Your task to perform on an android device: Open Android settings Image 0: 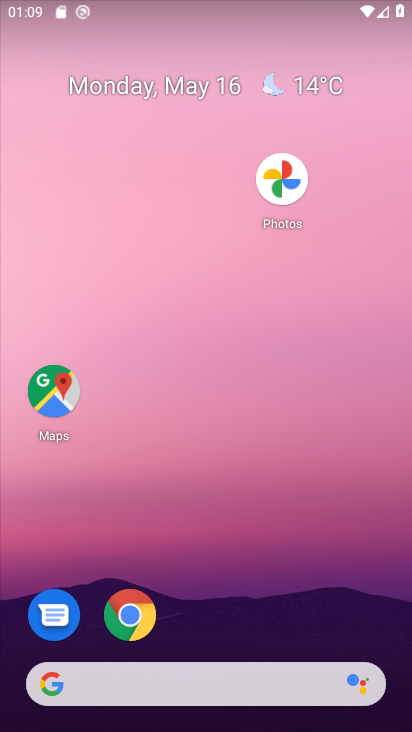
Step 0: drag from (324, 586) to (356, 87)
Your task to perform on an android device: Open Android settings Image 1: 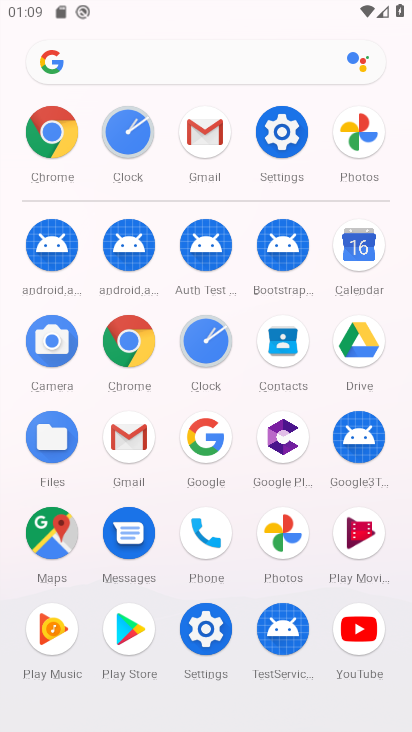
Step 1: click (210, 634)
Your task to perform on an android device: Open Android settings Image 2: 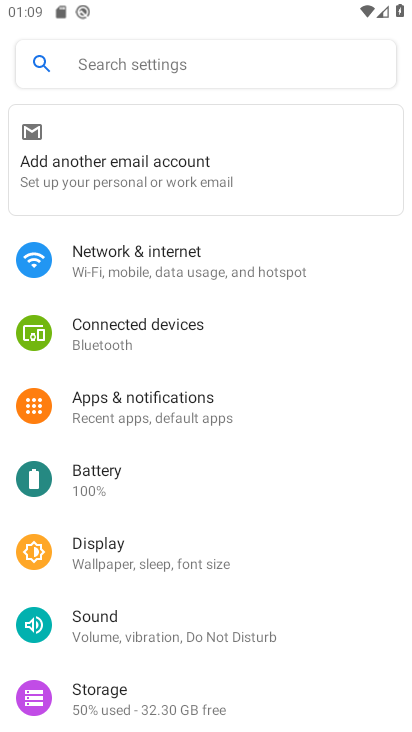
Step 2: drag from (322, 695) to (293, 263)
Your task to perform on an android device: Open Android settings Image 3: 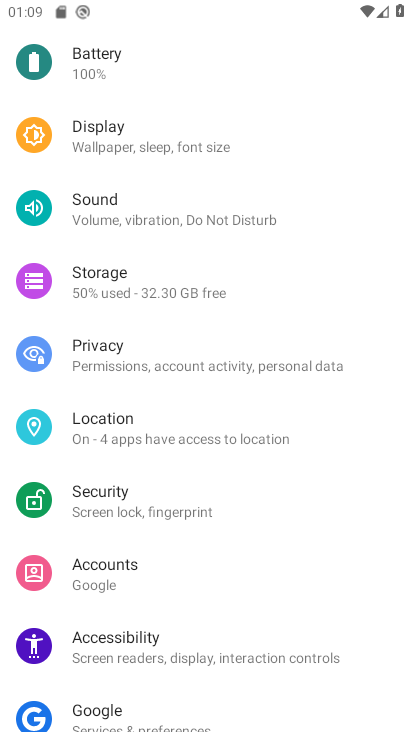
Step 3: drag from (277, 704) to (352, 188)
Your task to perform on an android device: Open Android settings Image 4: 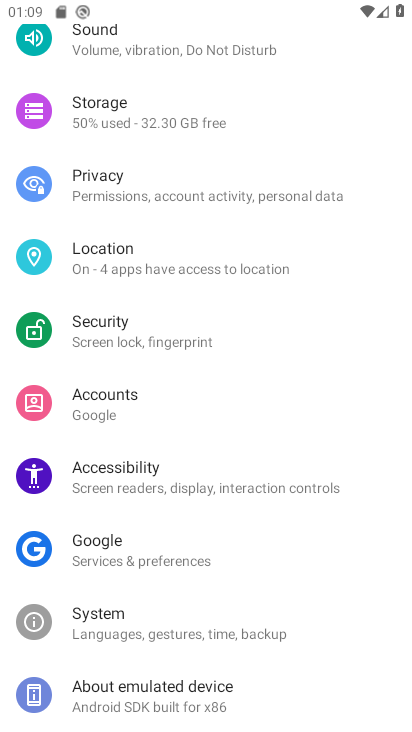
Step 4: click (125, 687)
Your task to perform on an android device: Open Android settings Image 5: 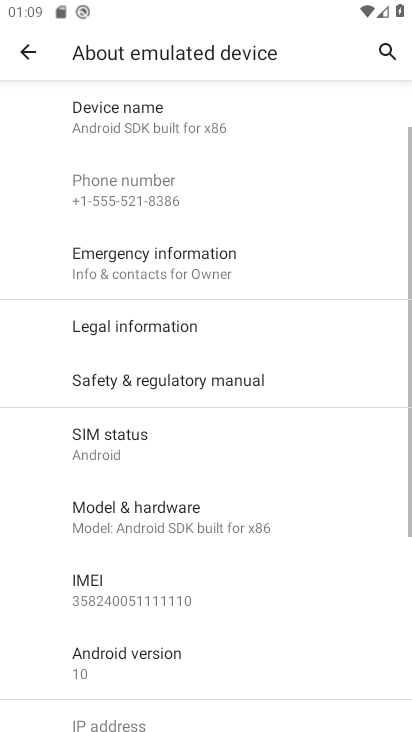
Step 5: click (154, 662)
Your task to perform on an android device: Open Android settings Image 6: 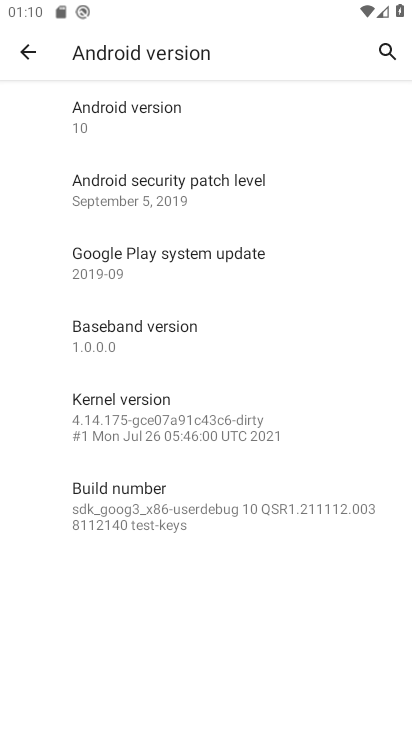
Step 6: task complete